Your task to perform on an android device: allow notifications from all sites in the chrome app Image 0: 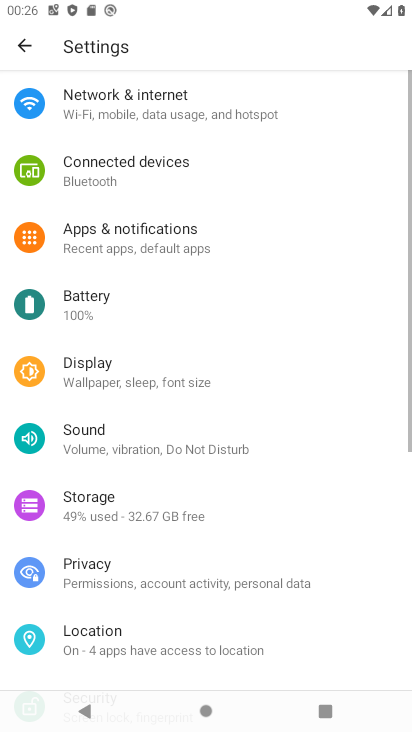
Step 0: click (179, 234)
Your task to perform on an android device: allow notifications from all sites in the chrome app Image 1: 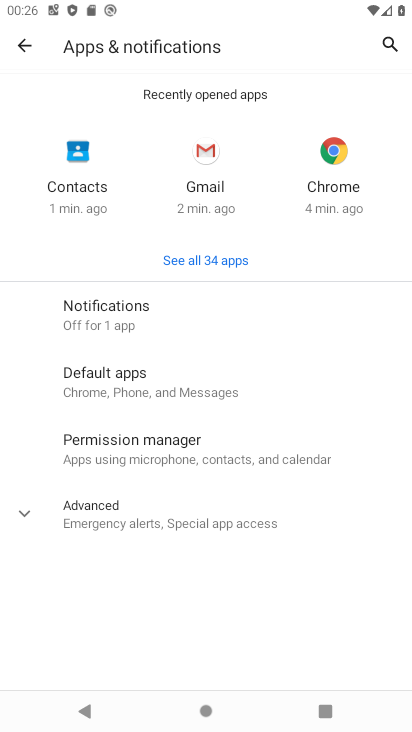
Step 1: press home button
Your task to perform on an android device: allow notifications from all sites in the chrome app Image 2: 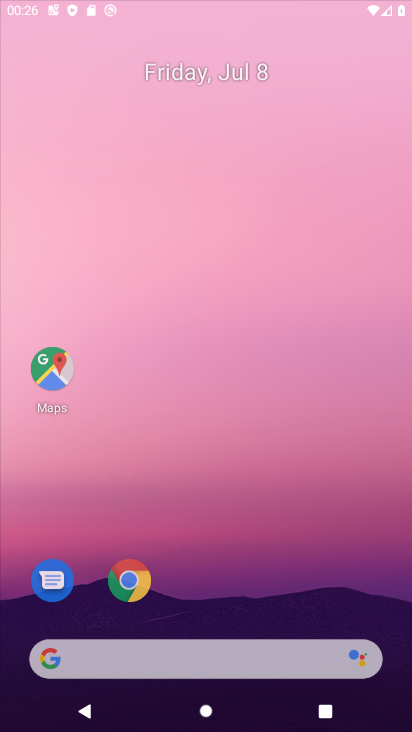
Step 2: drag from (163, 565) to (254, 214)
Your task to perform on an android device: allow notifications from all sites in the chrome app Image 3: 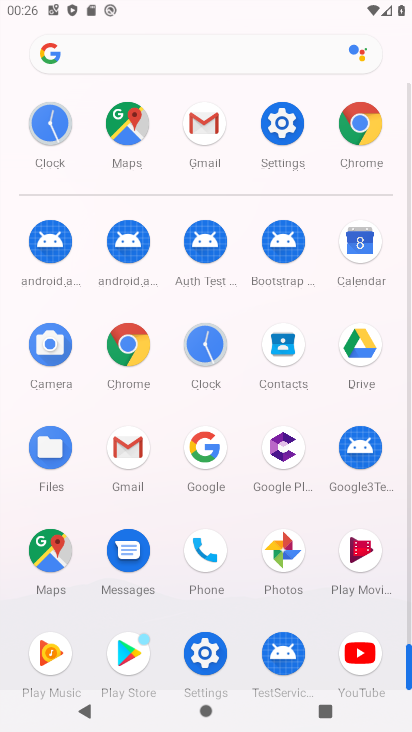
Step 3: click (365, 120)
Your task to perform on an android device: allow notifications from all sites in the chrome app Image 4: 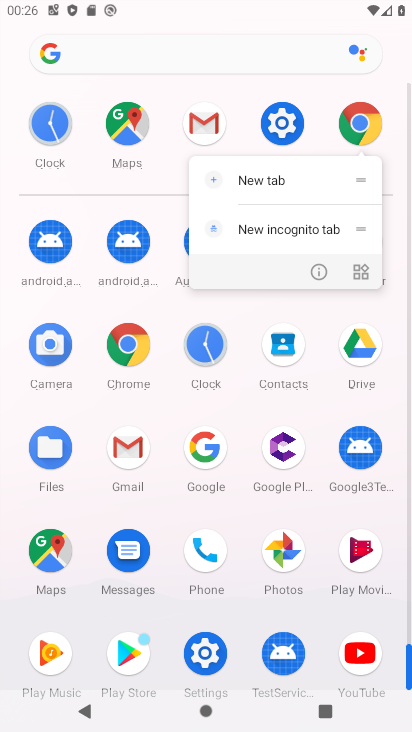
Step 4: click (317, 272)
Your task to perform on an android device: allow notifications from all sites in the chrome app Image 5: 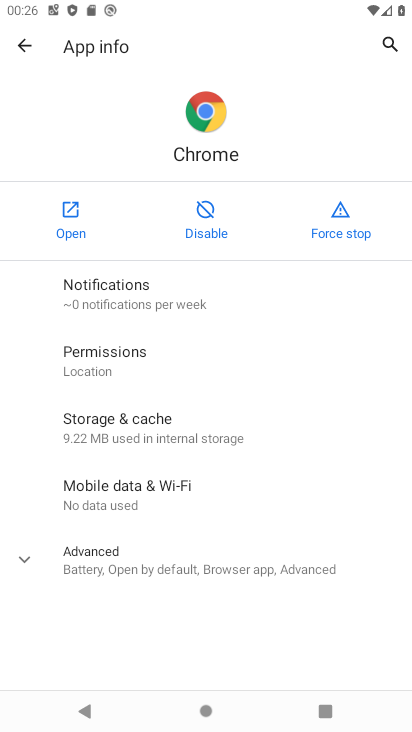
Step 5: click (85, 215)
Your task to perform on an android device: allow notifications from all sites in the chrome app Image 6: 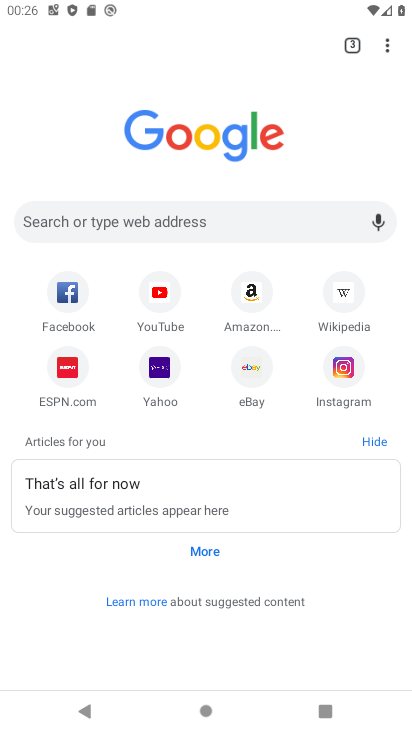
Step 6: drag from (192, 590) to (202, 275)
Your task to perform on an android device: allow notifications from all sites in the chrome app Image 7: 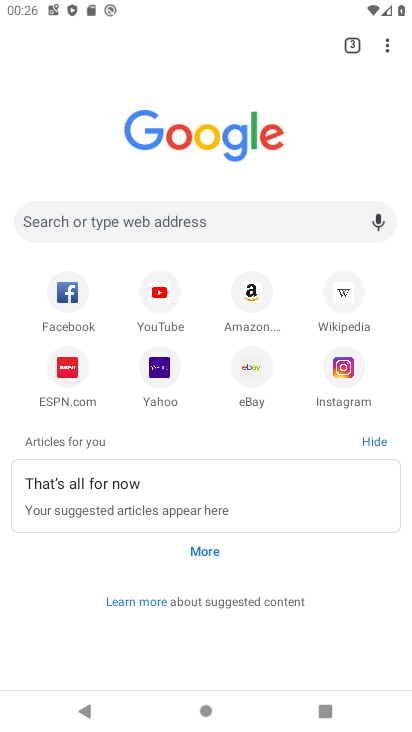
Step 7: drag from (258, 146) to (401, 529)
Your task to perform on an android device: allow notifications from all sites in the chrome app Image 8: 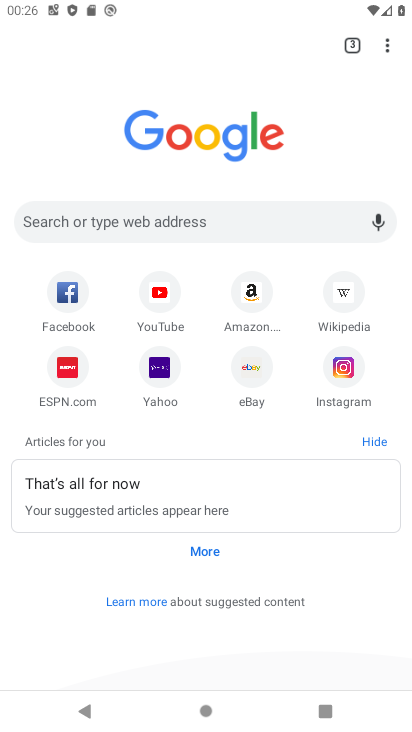
Step 8: drag from (233, 575) to (331, 146)
Your task to perform on an android device: allow notifications from all sites in the chrome app Image 9: 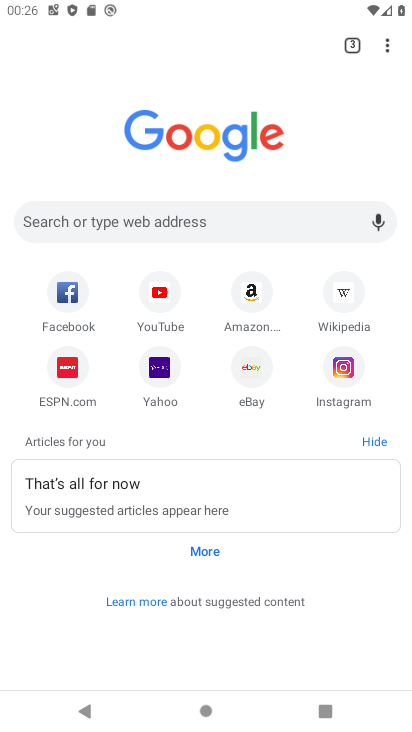
Step 9: drag from (272, 585) to (311, 285)
Your task to perform on an android device: allow notifications from all sites in the chrome app Image 10: 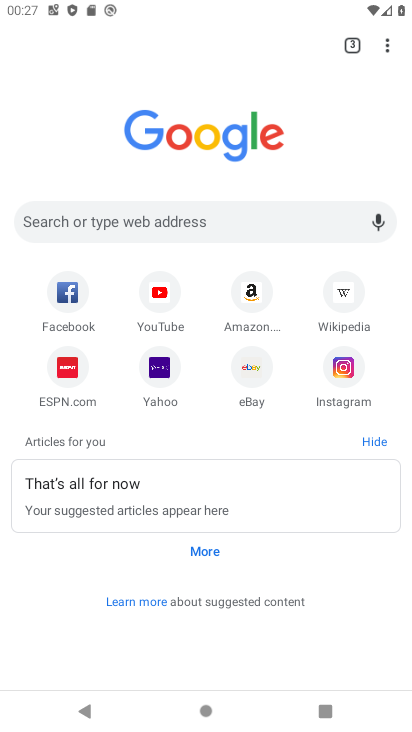
Step 10: drag from (217, 620) to (314, 372)
Your task to perform on an android device: allow notifications from all sites in the chrome app Image 11: 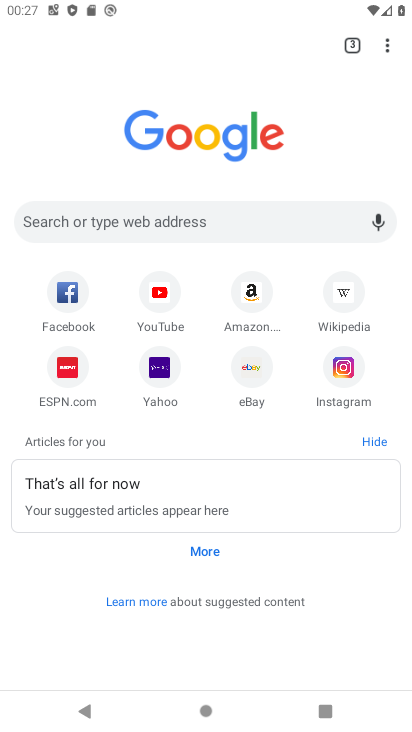
Step 11: click (387, 37)
Your task to perform on an android device: allow notifications from all sites in the chrome app Image 12: 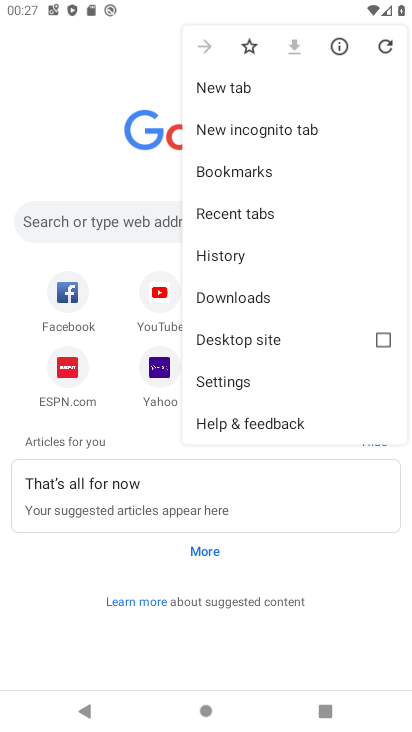
Step 12: drag from (250, 332) to (280, 126)
Your task to perform on an android device: allow notifications from all sites in the chrome app Image 13: 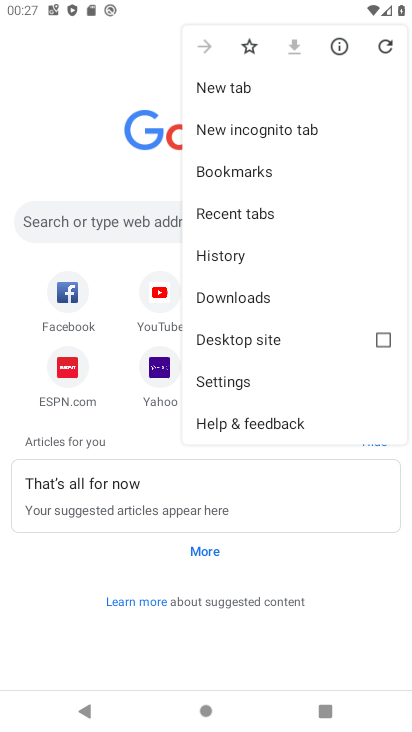
Step 13: click (225, 381)
Your task to perform on an android device: allow notifications from all sites in the chrome app Image 14: 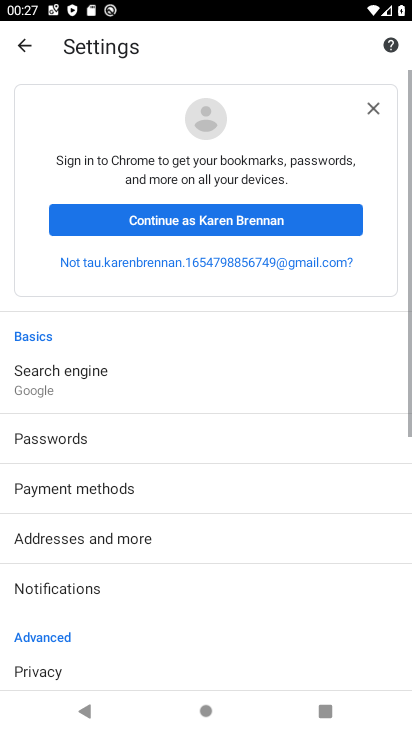
Step 14: drag from (162, 540) to (283, 236)
Your task to perform on an android device: allow notifications from all sites in the chrome app Image 15: 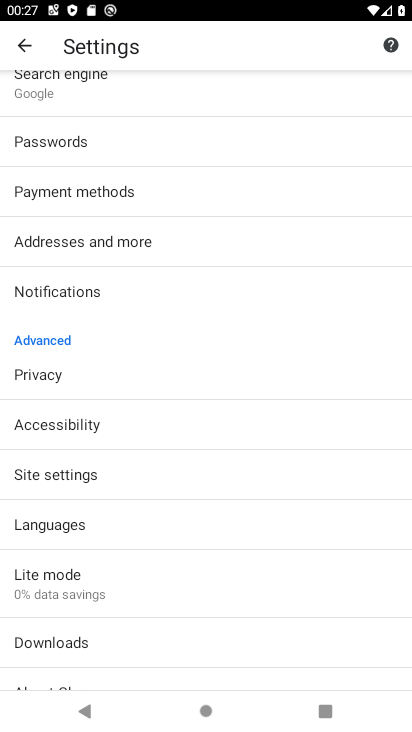
Step 15: click (101, 468)
Your task to perform on an android device: allow notifications from all sites in the chrome app Image 16: 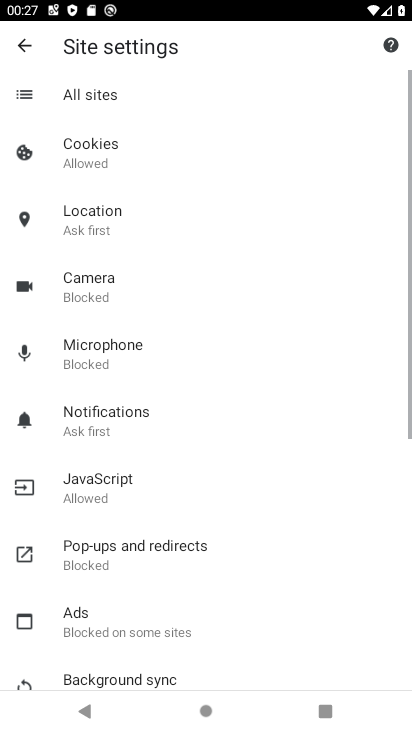
Step 16: drag from (179, 479) to (261, 233)
Your task to perform on an android device: allow notifications from all sites in the chrome app Image 17: 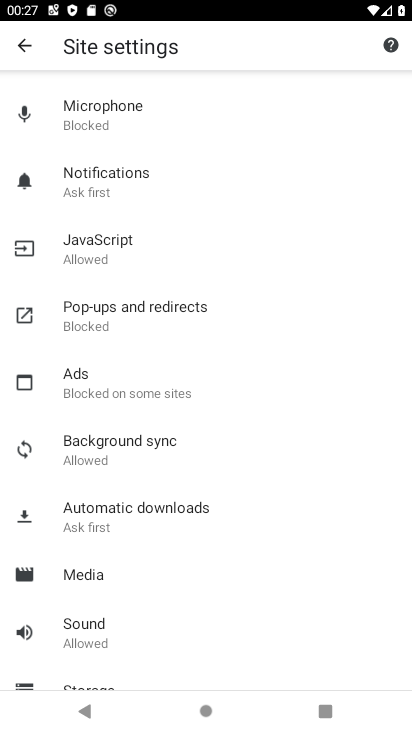
Step 17: drag from (226, 589) to (252, 242)
Your task to perform on an android device: allow notifications from all sites in the chrome app Image 18: 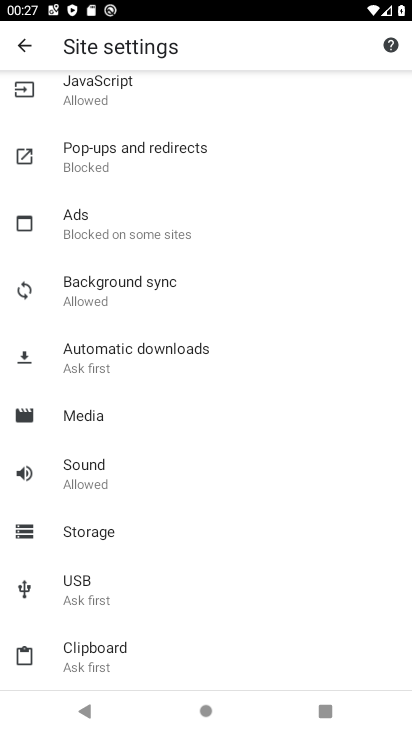
Step 18: drag from (150, 590) to (179, 339)
Your task to perform on an android device: allow notifications from all sites in the chrome app Image 19: 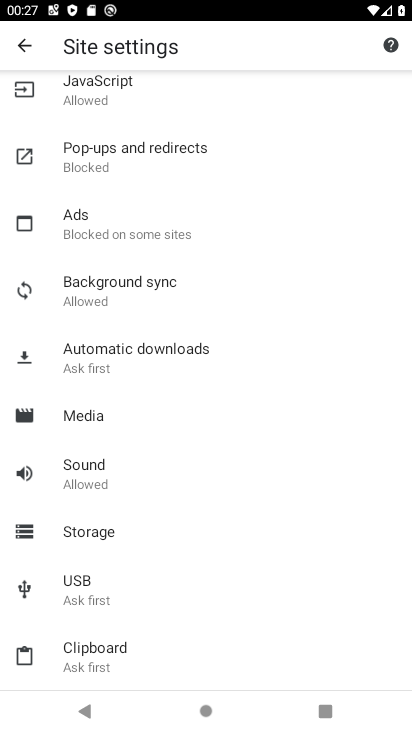
Step 19: drag from (231, 218) to (278, 711)
Your task to perform on an android device: allow notifications from all sites in the chrome app Image 20: 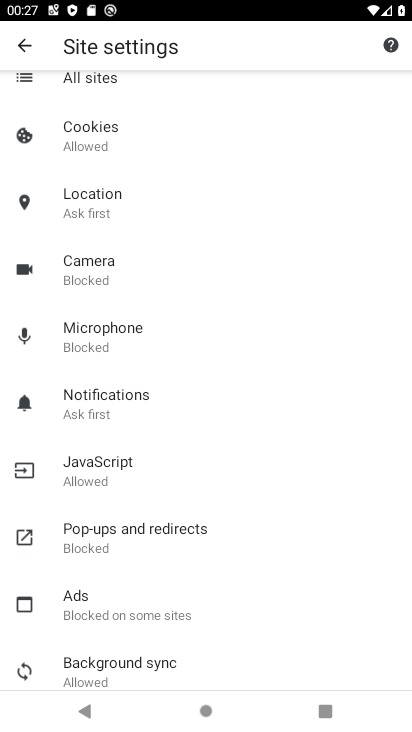
Step 20: click (109, 403)
Your task to perform on an android device: allow notifications from all sites in the chrome app Image 21: 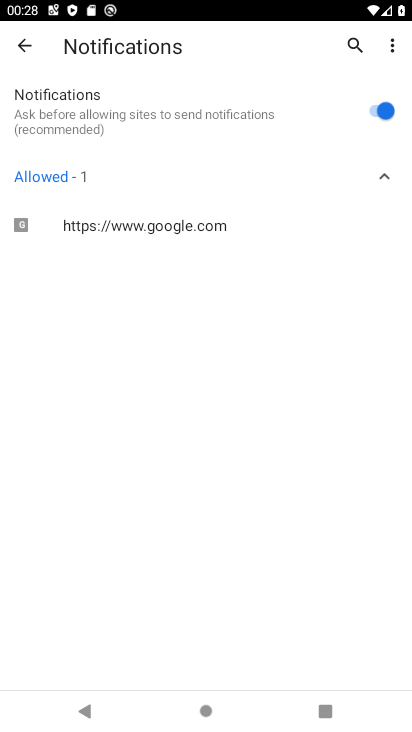
Step 21: task complete